Your task to perform on an android device: Add acer predator to the cart on ebay.com, then select checkout. Image 0: 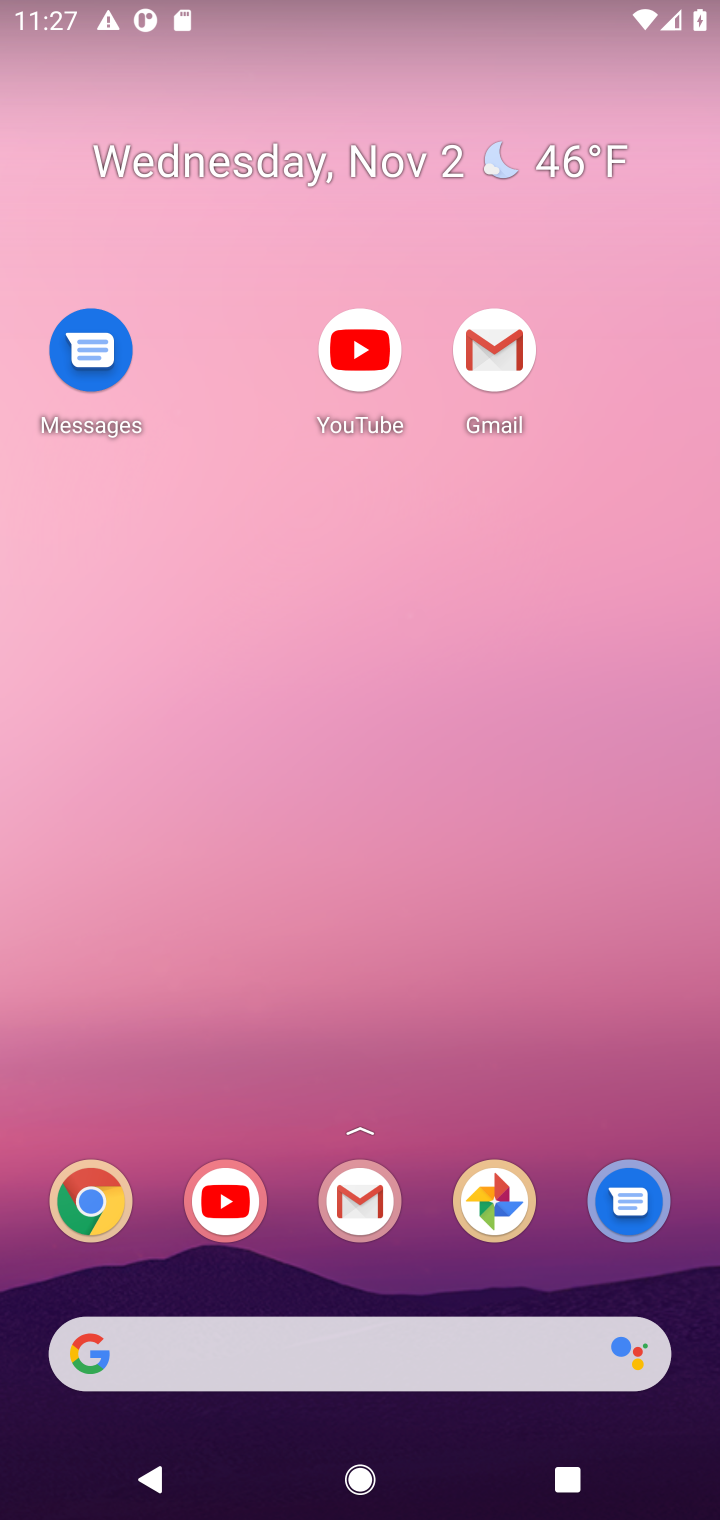
Step 0: drag from (428, 1289) to (416, 99)
Your task to perform on an android device: Add acer predator to the cart on ebay.com, then select checkout. Image 1: 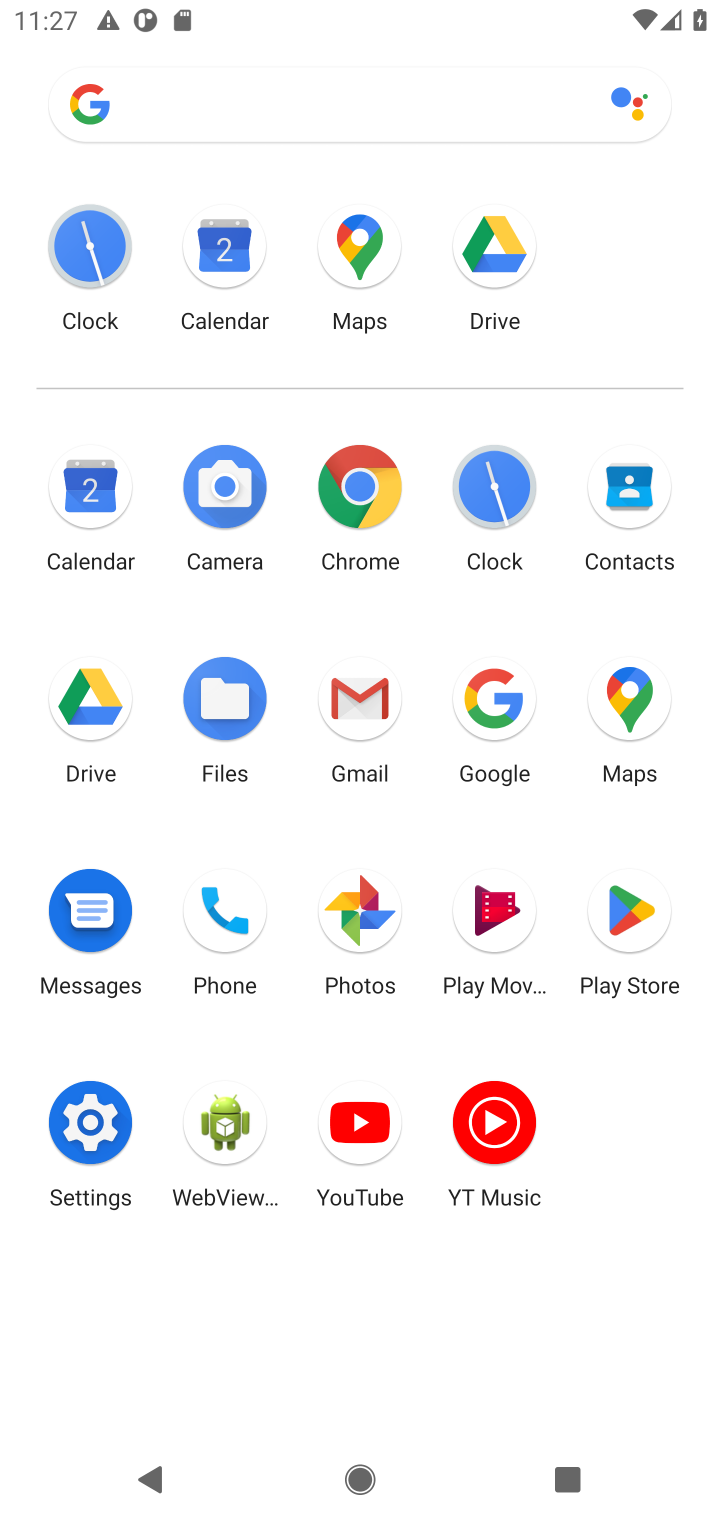
Step 1: click (367, 488)
Your task to perform on an android device: Add acer predator to the cart on ebay.com, then select checkout. Image 2: 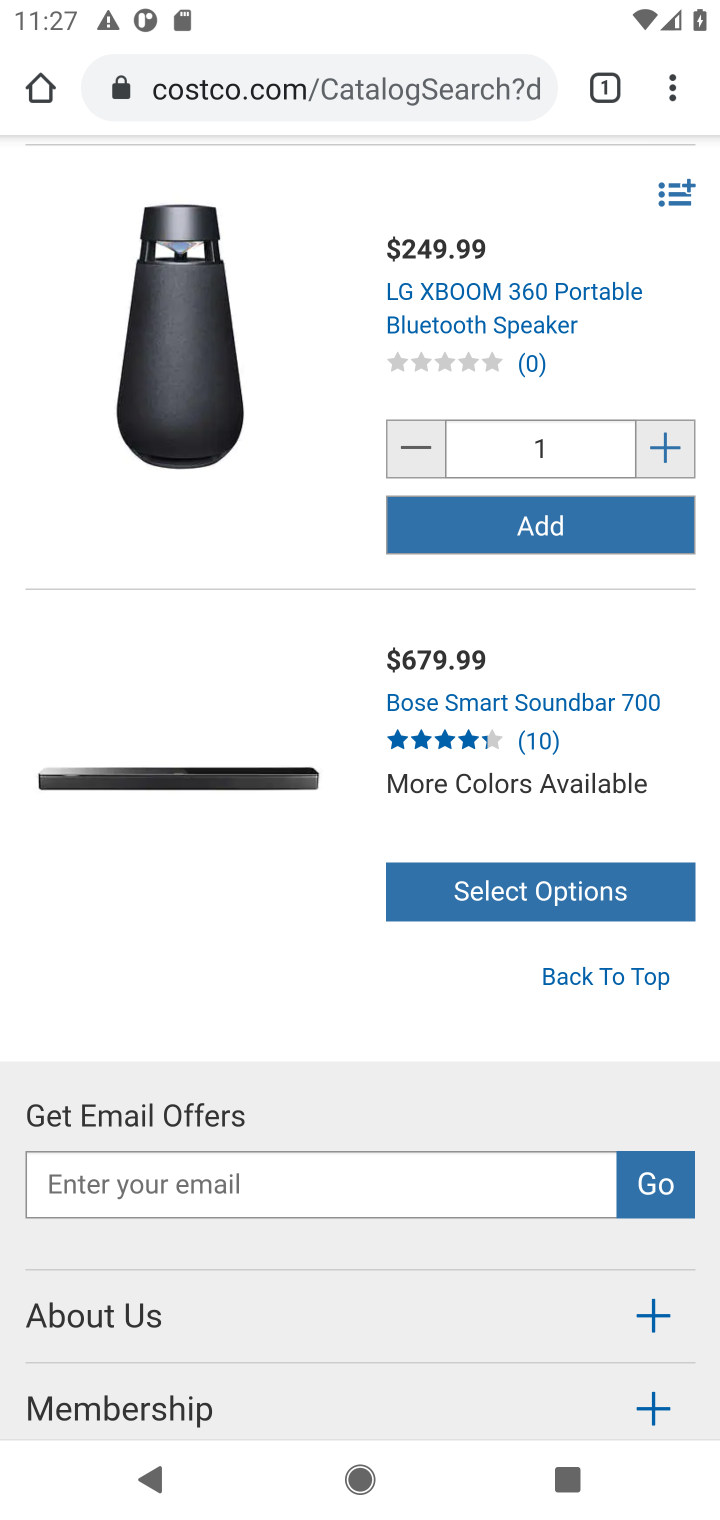
Step 2: click (328, 97)
Your task to perform on an android device: Add acer predator to the cart on ebay.com, then select checkout. Image 3: 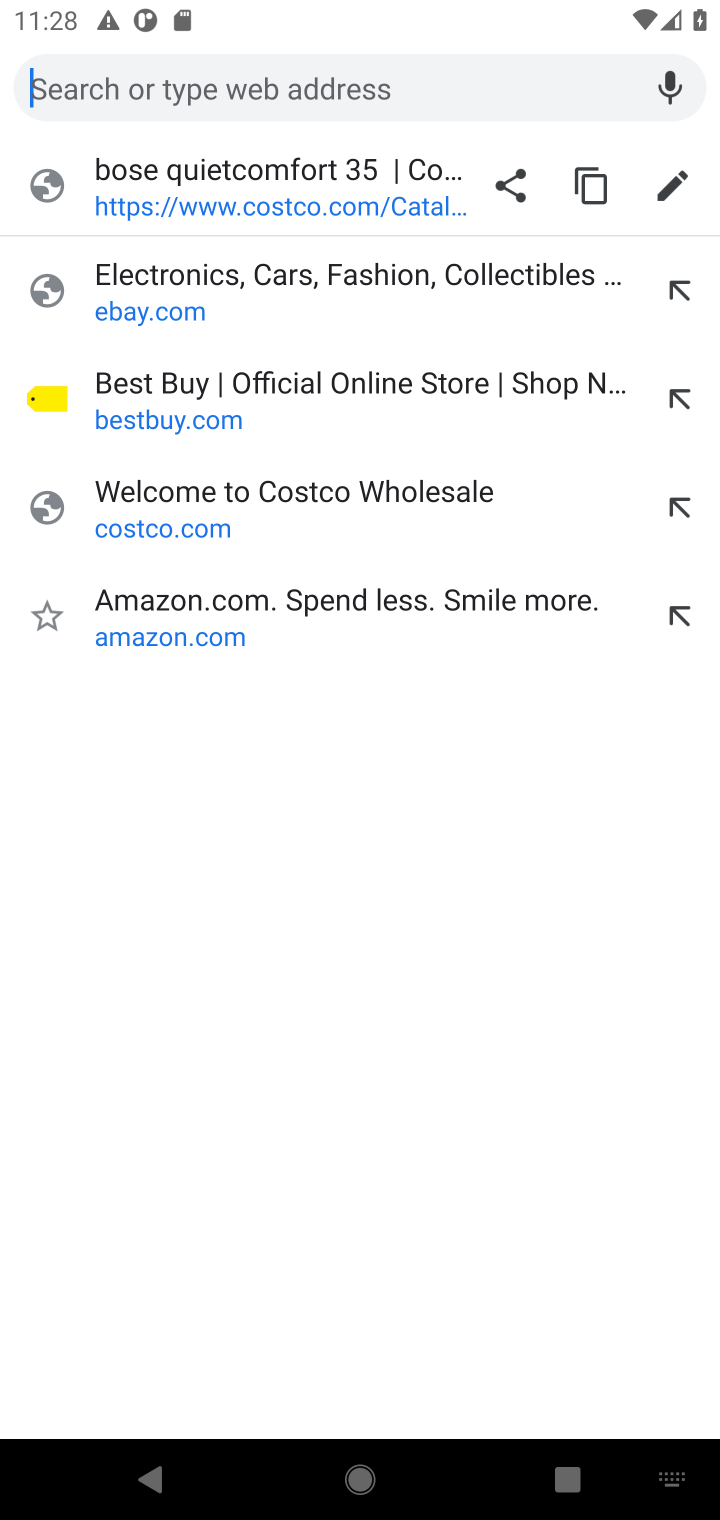
Step 3: type "ebay.com"
Your task to perform on an android device: Add acer predator to the cart on ebay.com, then select checkout. Image 4: 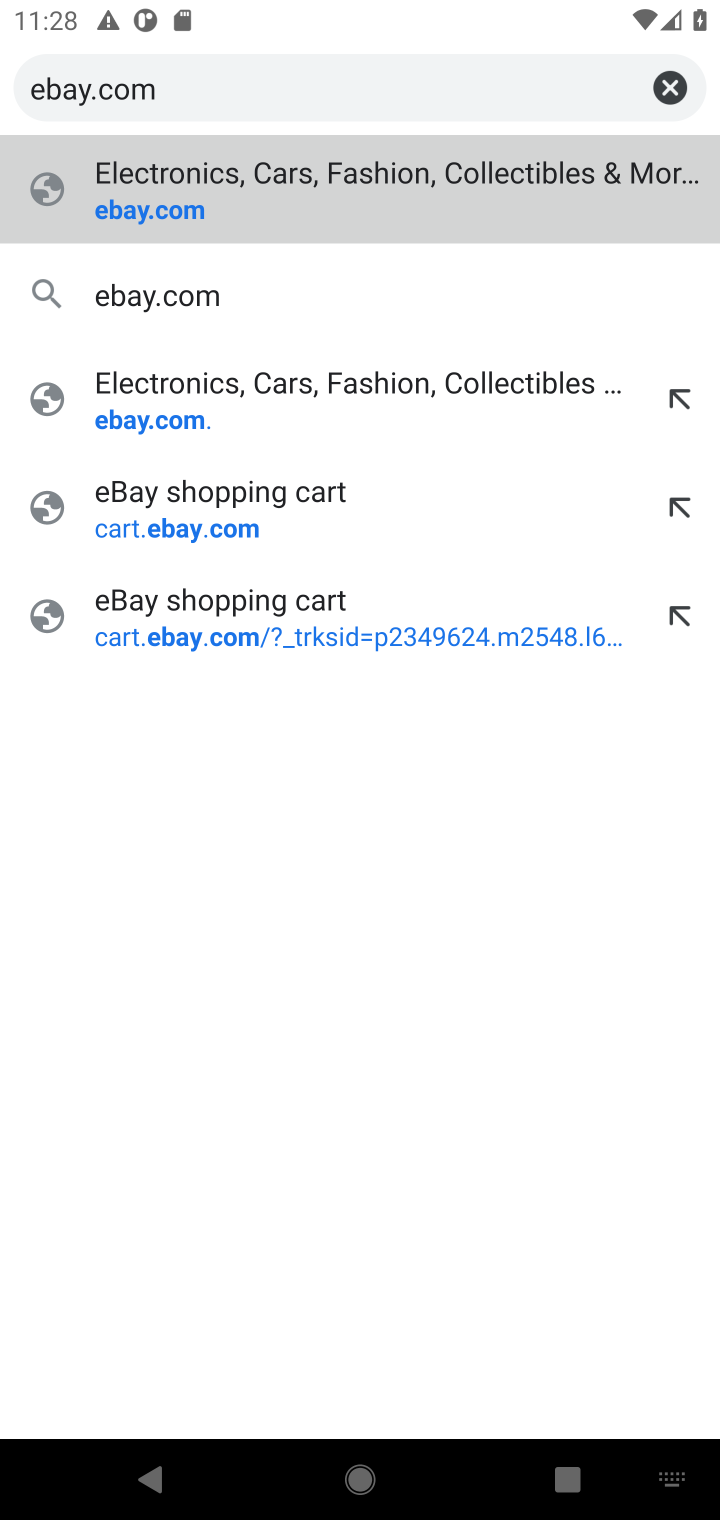
Step 4: press enter
Your task to perform on an android device: Add acer predator to the cart on ebay.com, then select checkout. Image 5: 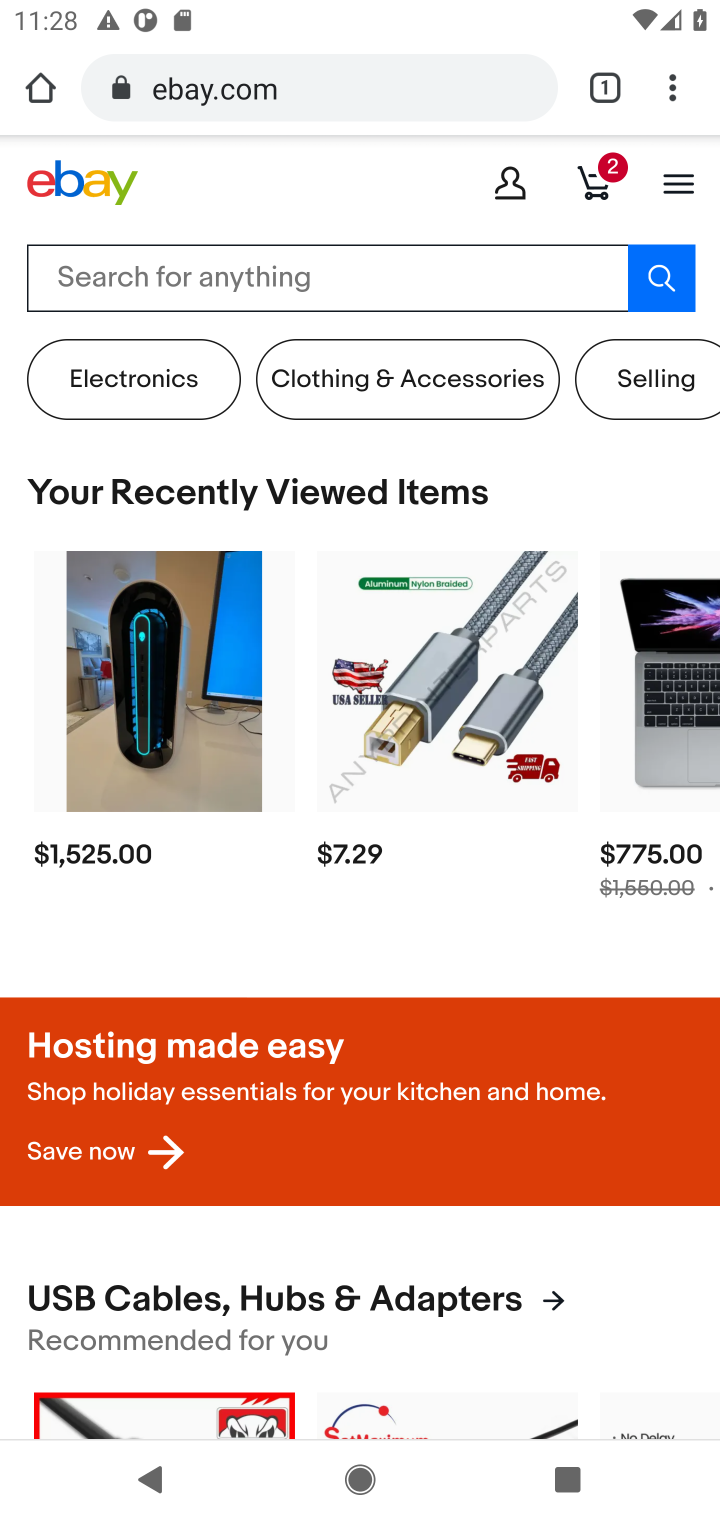
Step 5: click (397, 271)
Your task to perform on an android device: Add acer predator to the cart on ebay.com, then select checkout. Image 6: 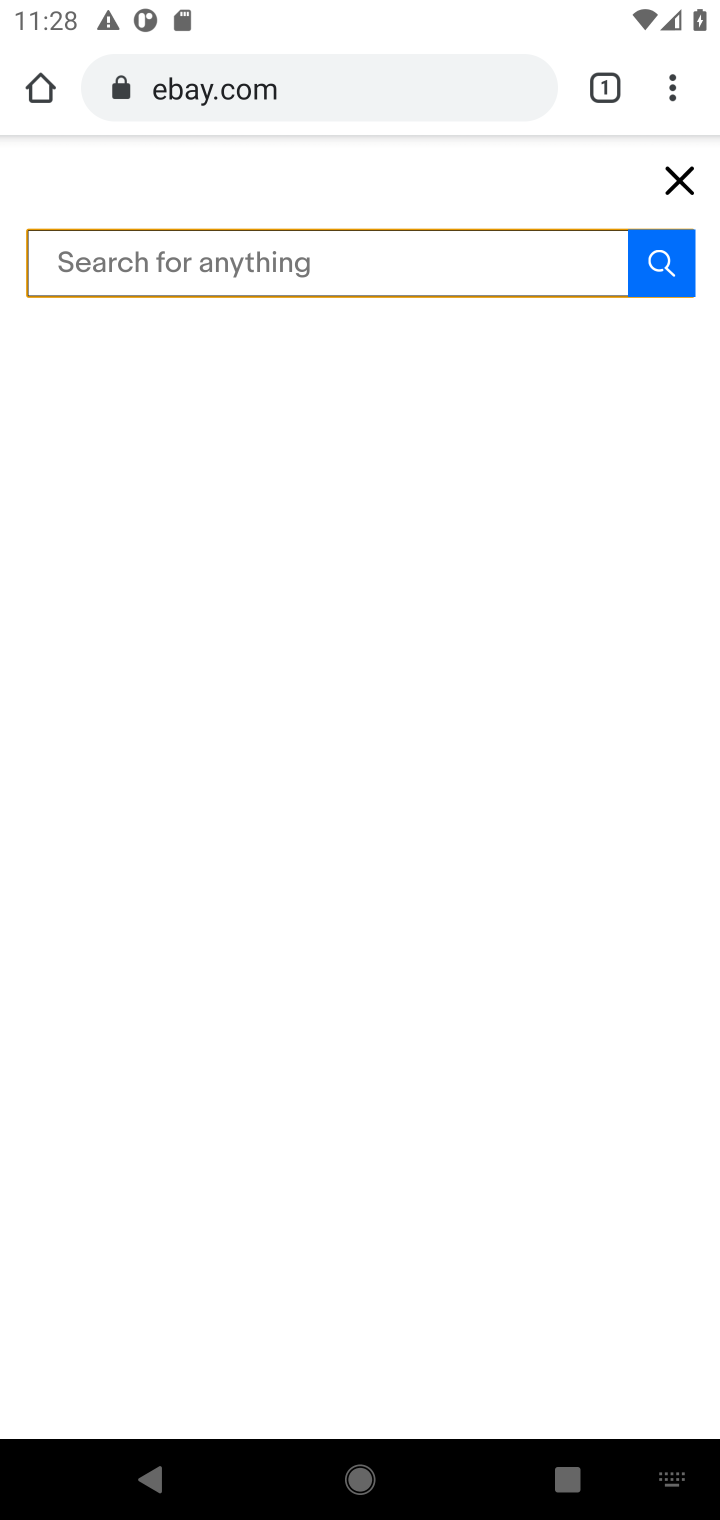
Step 6: type "acer predator"
Your task to perform on an android device: Add acer predator to the cart on ebay.com, then select checkout. Image 7: 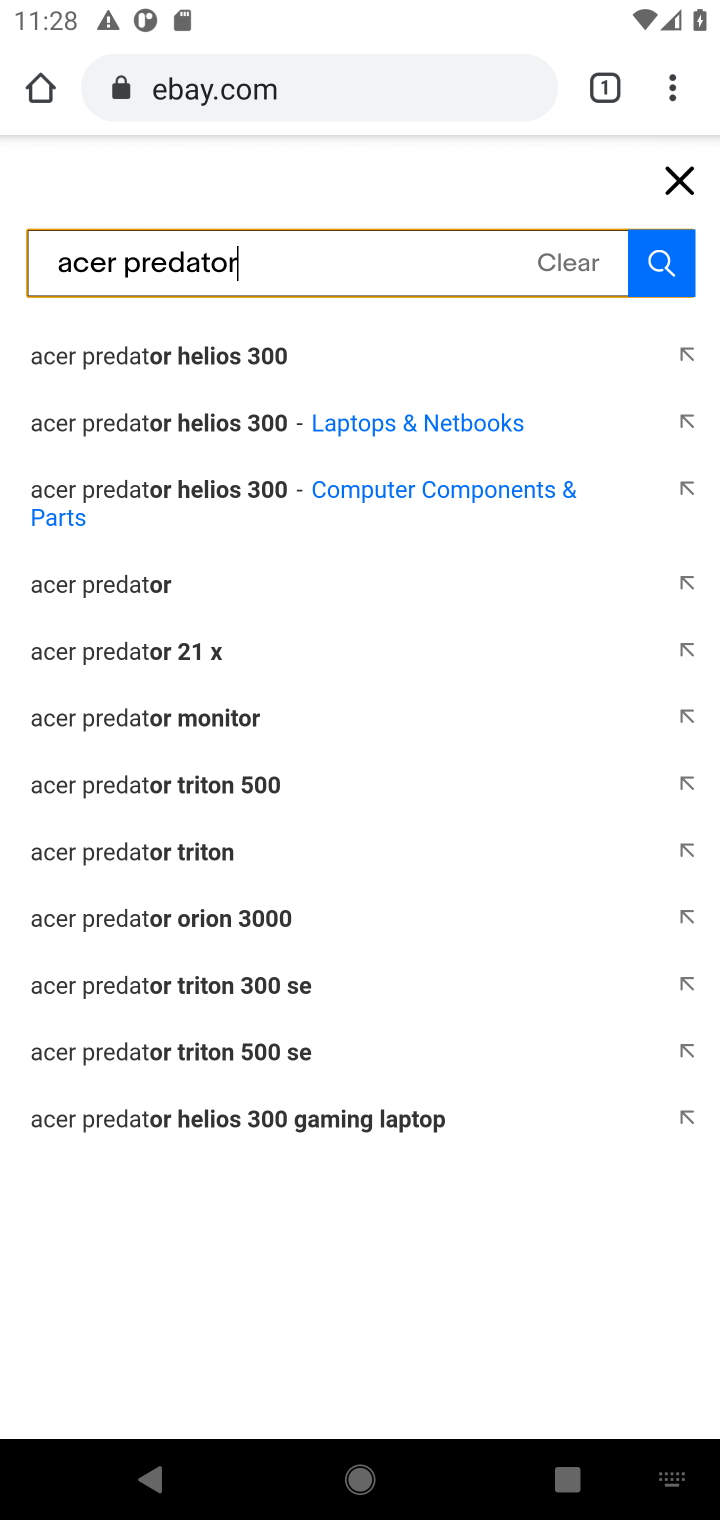
Step 7: press enter
Your task to perform on an android device: Add acer predator to the cart on ebay.com, then select checkout. Image 8: 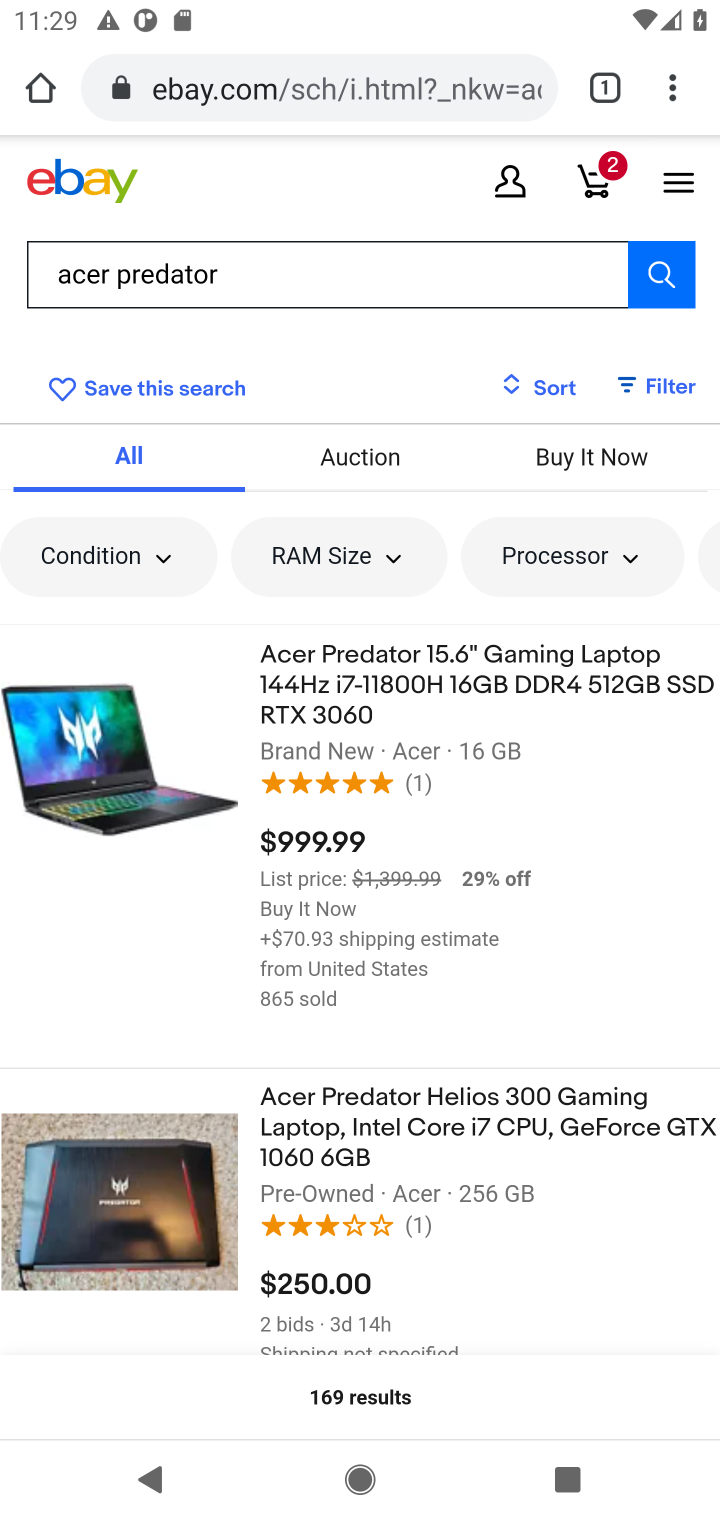
Step 8: click (342, 681)
Your task to perform on an android device: Add acer predator to the cart on ebay.com, then select checkout. Image 9: 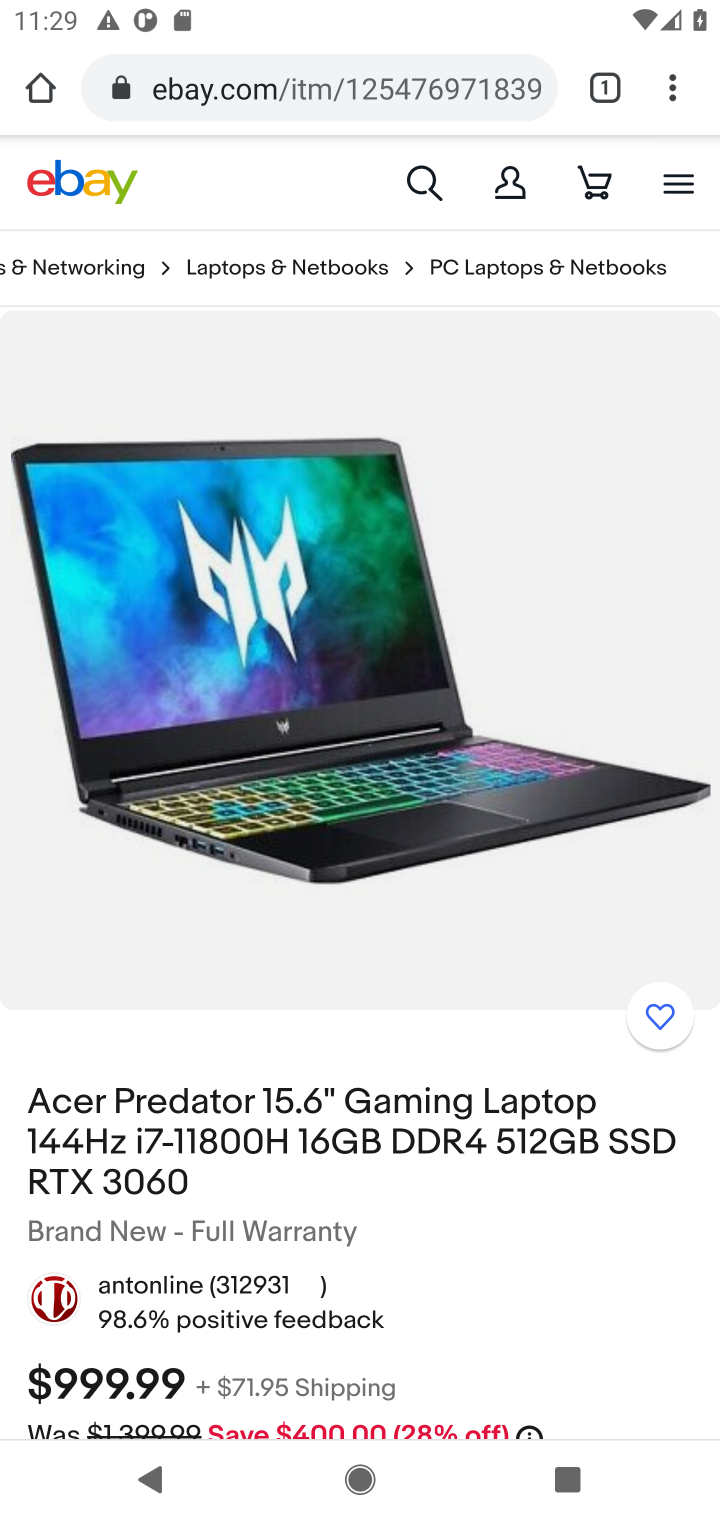
Step 9: drag from (404, 1332) to (392, 827)
Your task to perform on an android device: Add acer predator to the cart on ebay.com, then select checkout. Image 10: 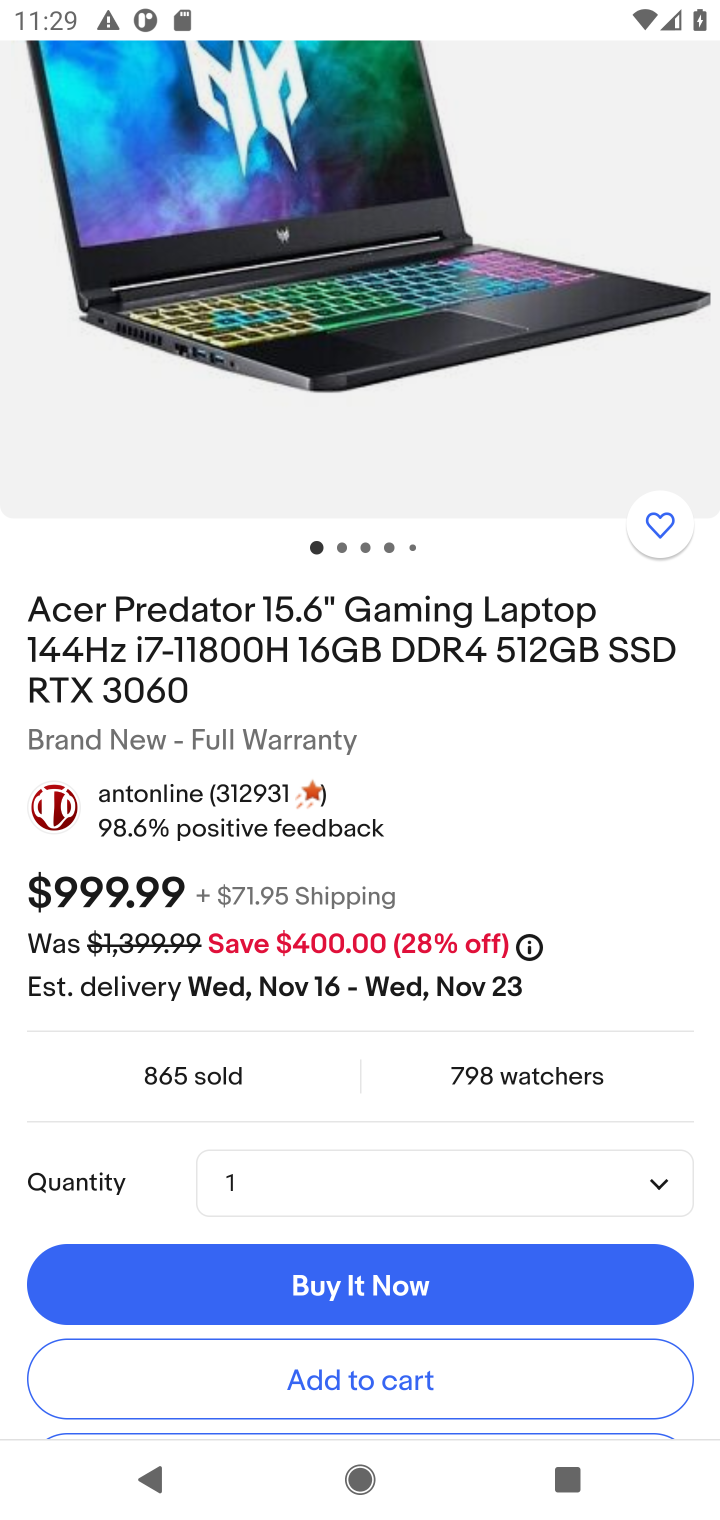
Step 10: click (398, 1378)
Your task to perform on an android device: Add acer predator to the cart on ebay.com, then select checkout. Image 11: 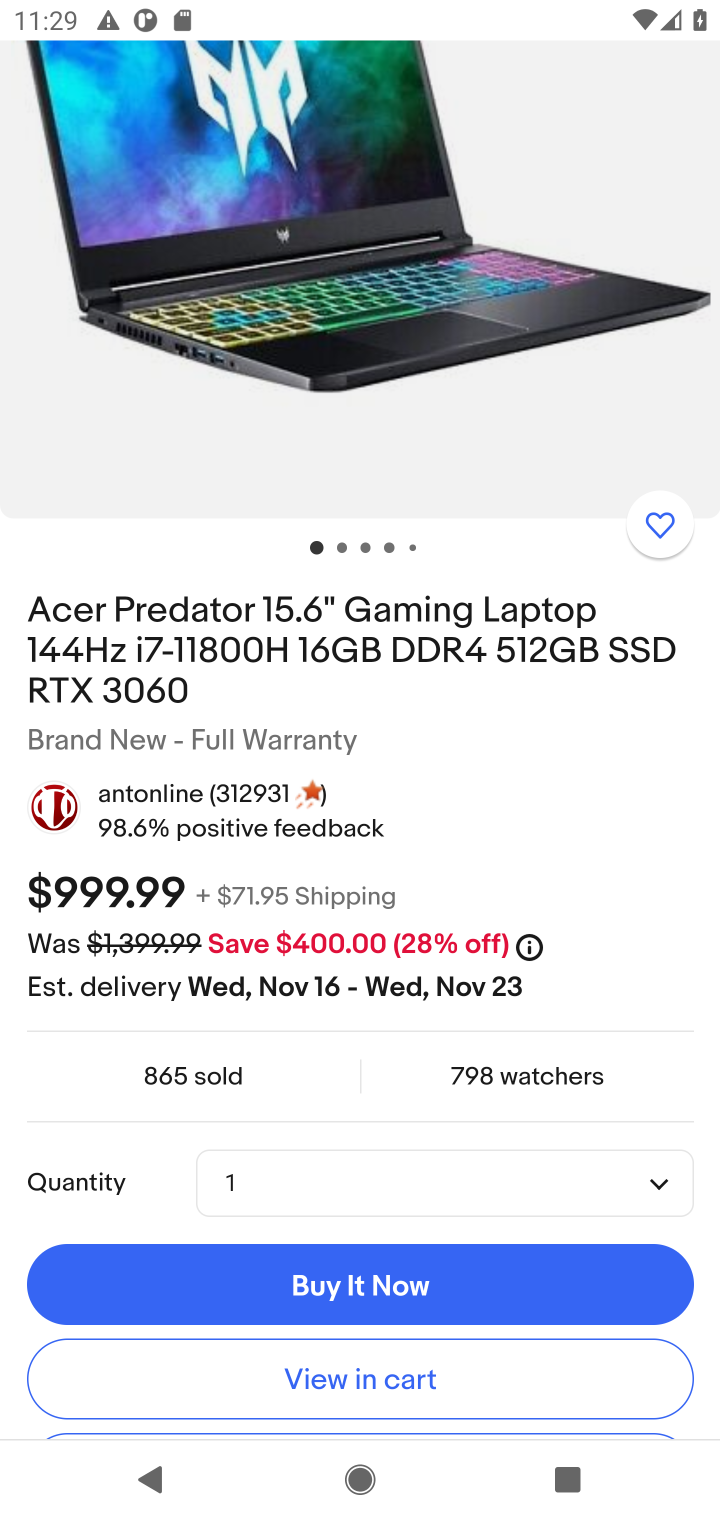
Step 11: click (398, 1378)
Your task to perform on an android device: Add acer predator to the cart on ebay.com, then select checkout. Image 12: 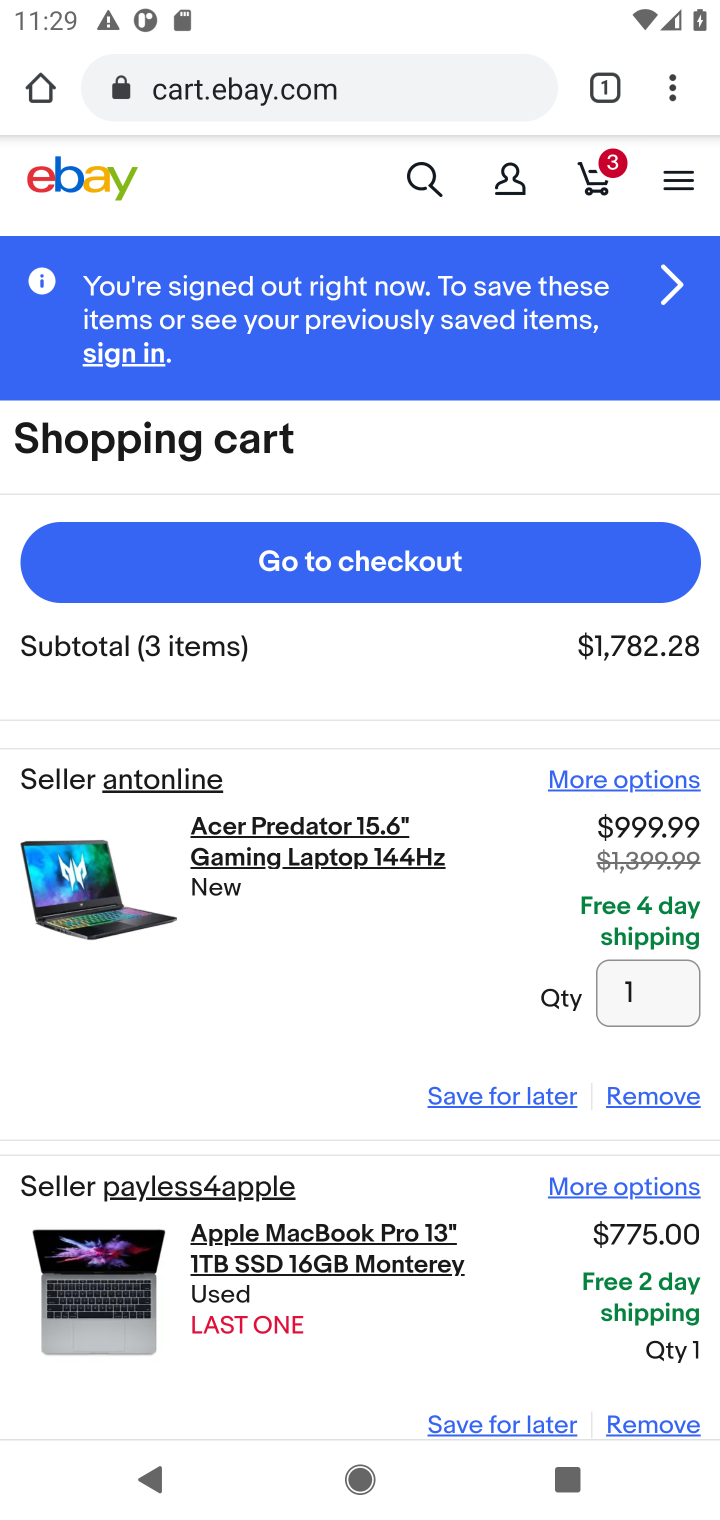
Step 12: click (335, 569)
Your task to perform on an android device: Add acer predator to the cart on ebay.com, then select checkout. Image 13: 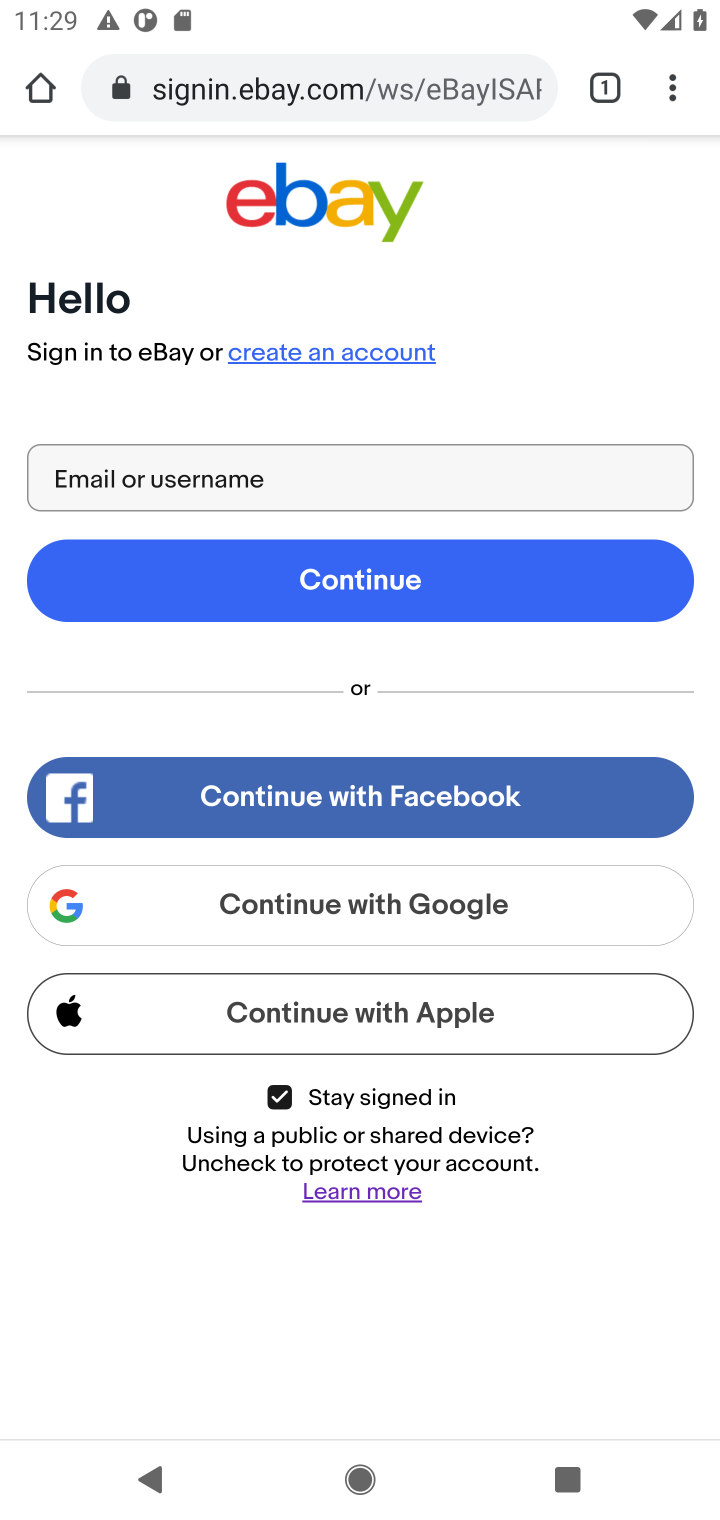
Step 13: task complete